Your task to perform on an android device: change the upload size in google photos Image 0: 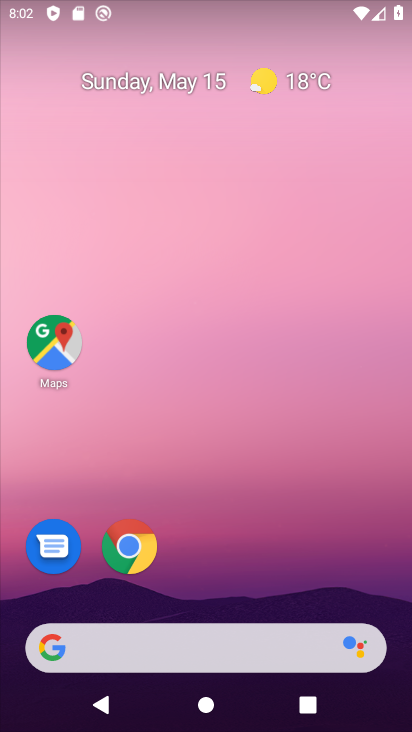
Step 0: drag from (269, 521) to (261, 140)
Your task to perform on an android device: change the upload size in google photos Image 1: 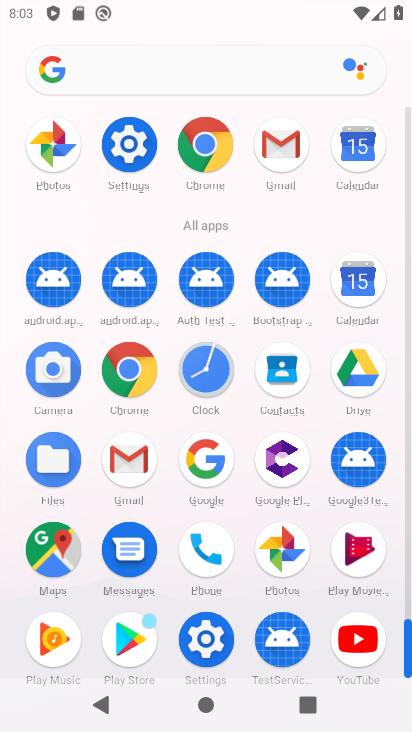
Step 1: drag from (239, 532) to (289, 249)
Your task to perform on an android device: change the upload size in google photos Image 2: 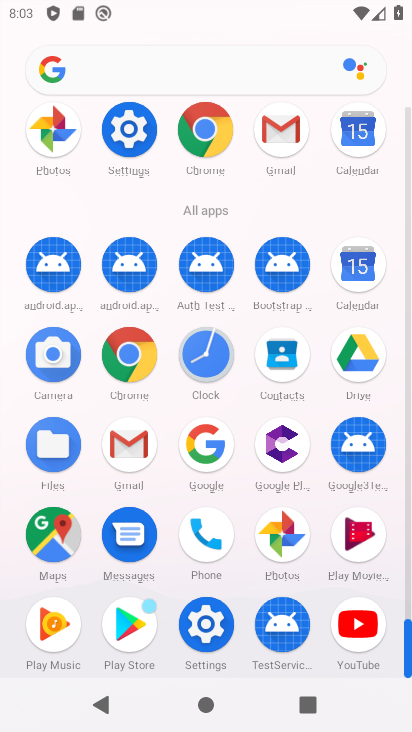
Step 2: click (269, 525)
Your task to perform on an android device: change the upload size in google photos Image 3: 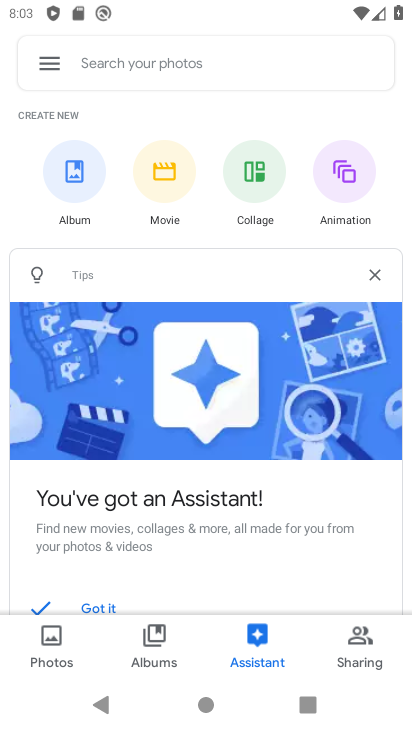
Step 3: click (38, 54)
Your task to perform on an android device: change the upload size in google photos Image 4: 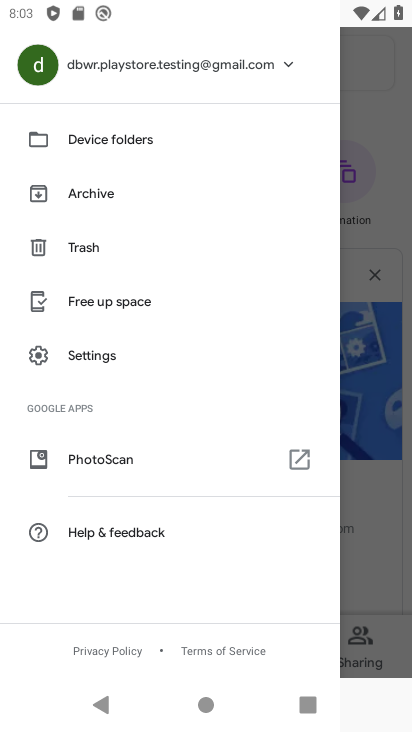
Step 4: click (90, 354)
Your task to perform on an android device: change the upload size in google photos Image 5: 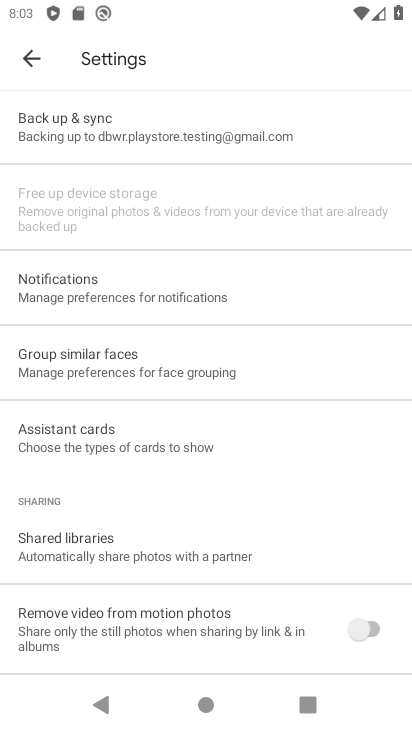
Step 5: click (172, 121)
Your task to perform on an android device: change the upload size in google photos Image 6: 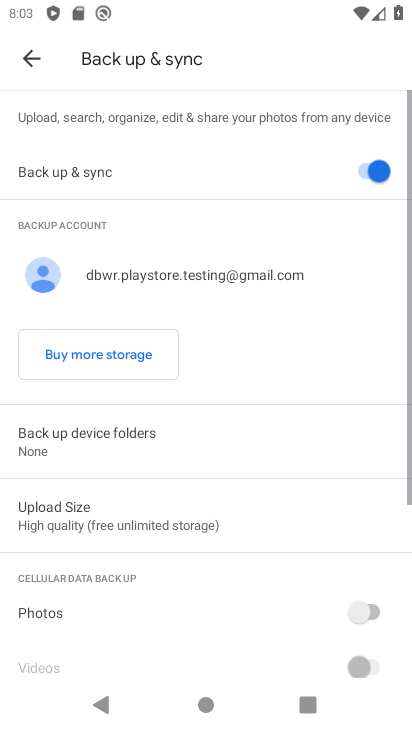
Step 6: drag from (184, 556) to (188, 467)
Your task to perform on an android device: change the upload size in google photos Image 7: 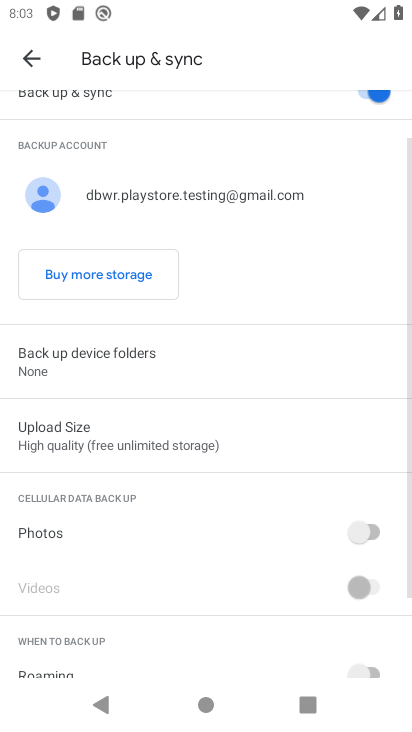
Step 7: click (138, 429)
Your task to perform on an android device: change the upload size in google photos Image 8: 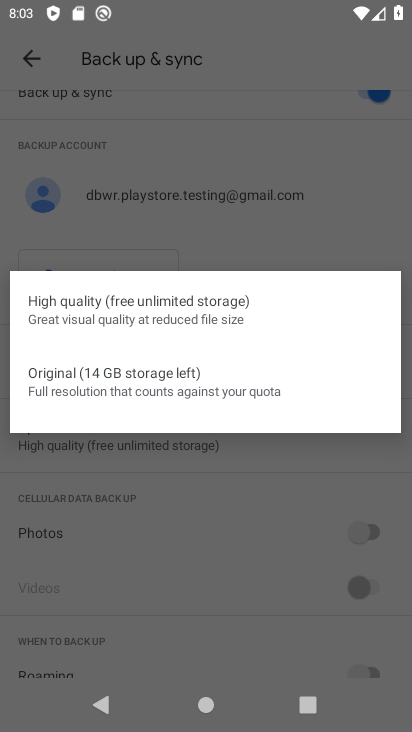
Step 8: click (108, 378)
Your task to perform on an android device: change the upload size in google photos Image 9: 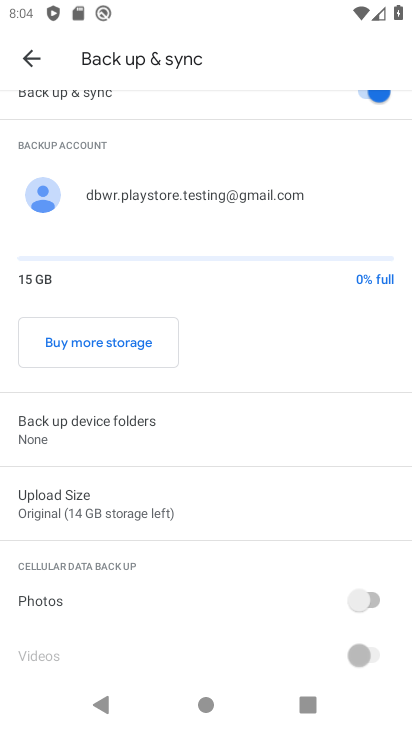
Step 9: task complete